Your task to perform on an android device: Search for pizza restaurants on Maps Image 0: 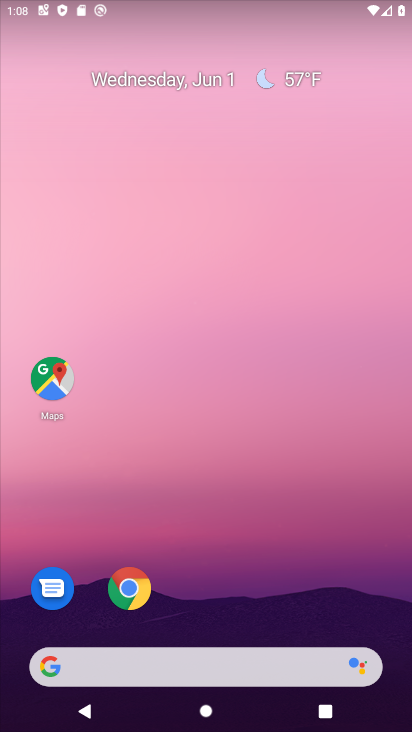
Step 0: click (61, 381)
Your task to perform on an android device: Search for pizza restaurants on Maps Image 1: 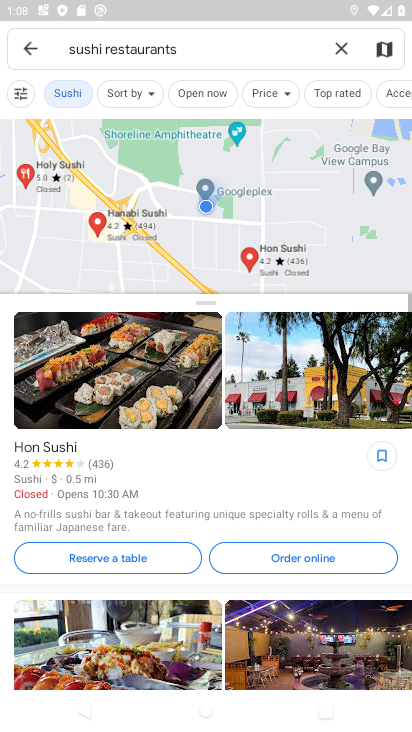
Step 1: click (332, 46)
Your task to perform on an android device: Search for pizza restaurants on Maps Image 2: 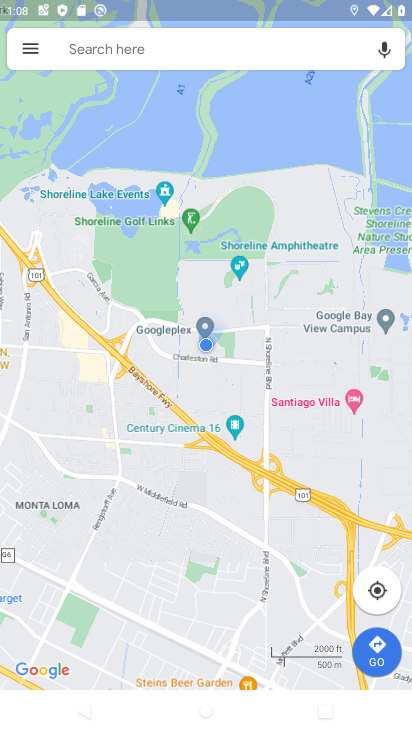
Step 2: click (207, 43)
Your task to perform on an android device: Search for pizza restaurants on Maps Image 3: 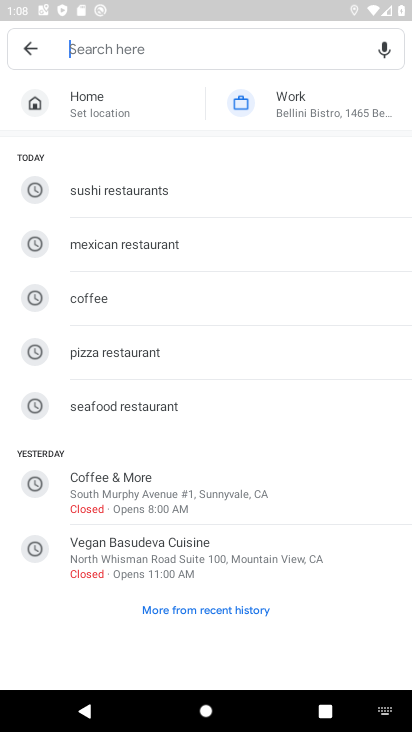
Step 3: click (159, 350)
Your task to perform on an android device: Search for pizza restaurants on Maps Image 4: 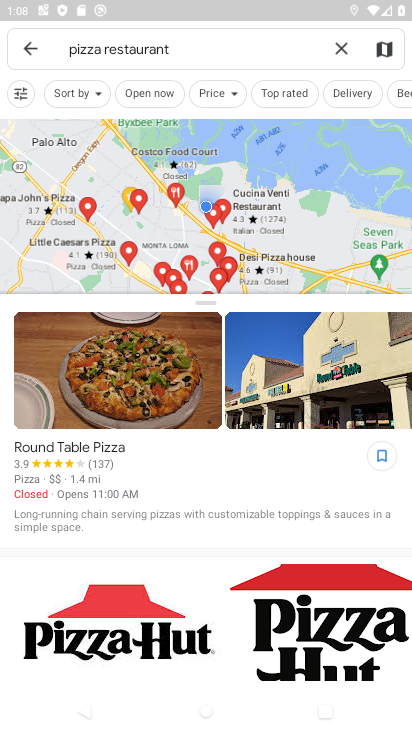
Step 4: task complete